Your task to perform on an android device: turn on showing notifications on the lock screen Image 0: 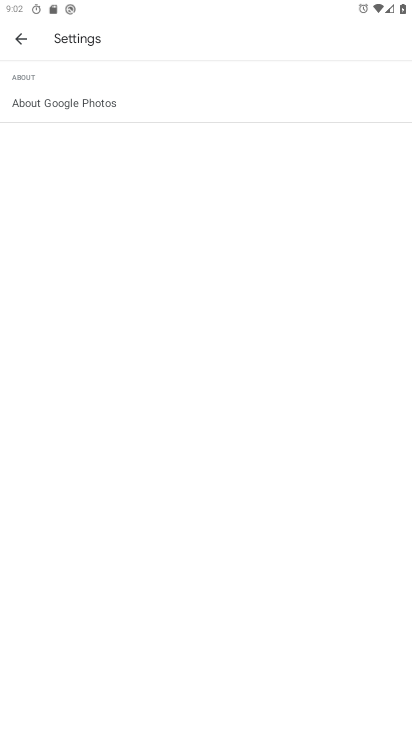
Step 0: press home button
Your task to perform on an android device: turn on showing notifications on the lock screen Image 1: 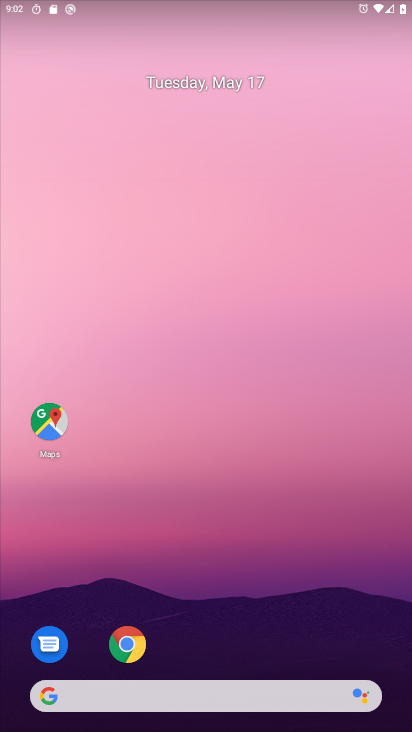
Step 1: drag from (201, 653) to (228, 55)
Your task to perform on an android device: turn on showing notifications on the lock screen Image 2: 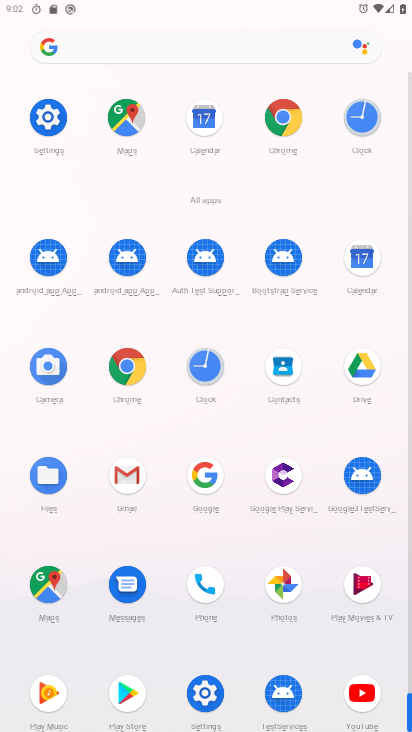
Step 2: click (47, 112)
Your task to perform on an android device: turn on showing notifications on the lock screen Image 3: 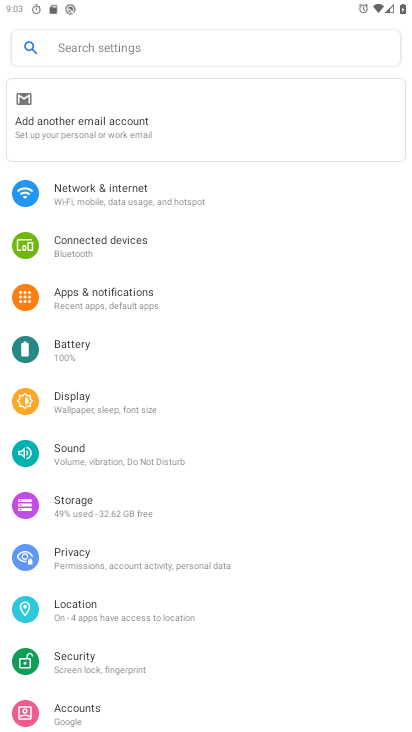
Step 3: click (178, 293)
Your task to perform on an android device: turn on showing notifications on the lock screen Image 4: 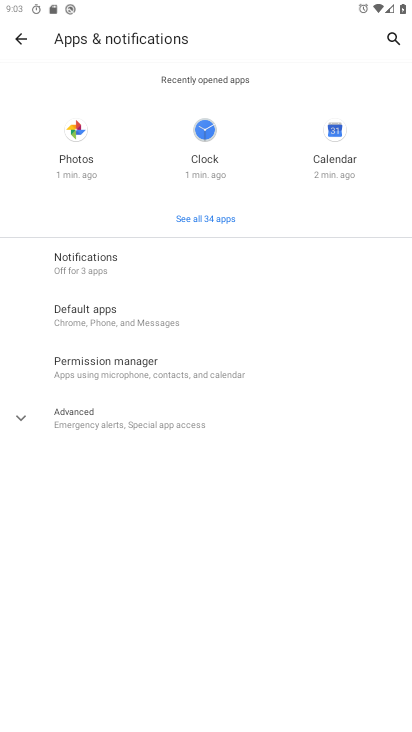
Step 4: click (123, 261)
Your task to perform on an android device: turn on showing notifications on the lock screen Image 5: 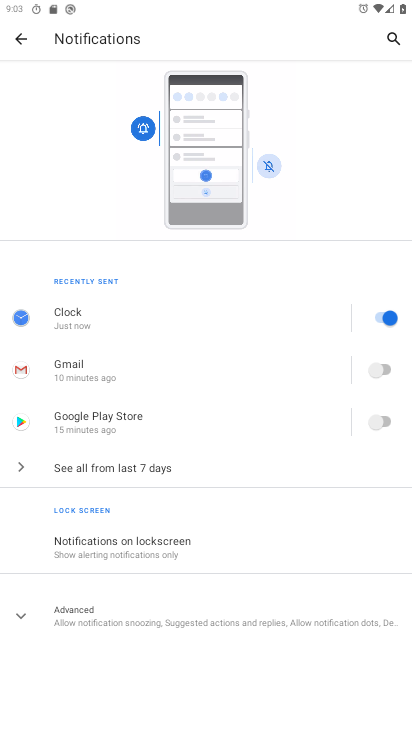
Step 5: click (188, 552)
Your task to perform on an android device: turn on showing notifications on the lock screen Image 6: 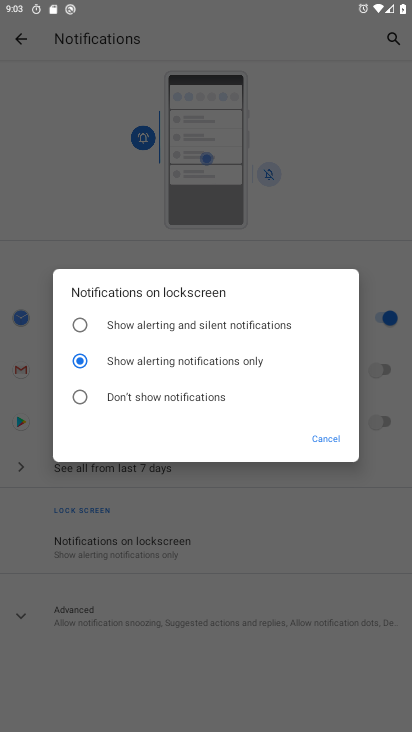
Step 6: click (77, 325)
Your task to perform on an android device: turn on showing notifications on the lock screen Image 7: 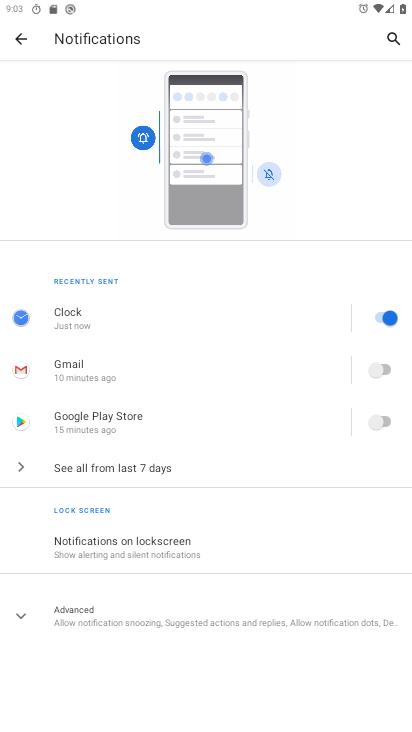
Step 7: task complete